Your task to perform on an android device: Open settings on Google Maps Image 0: 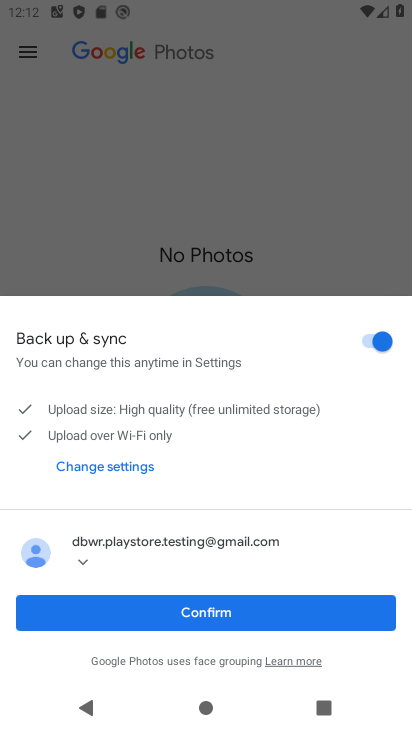
Step 0: press home button
Your task to perform on an android device: Open settings on Google Maps Image 1: 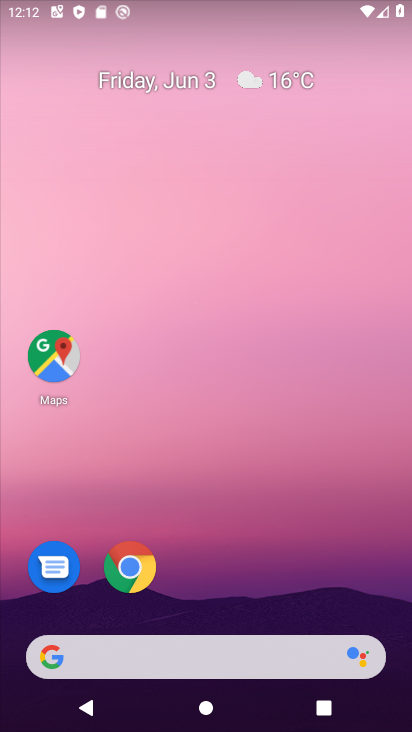
Step 1: click (60, 377)
Your task to perform on an android device: Open settings on Google Maps Image 2: 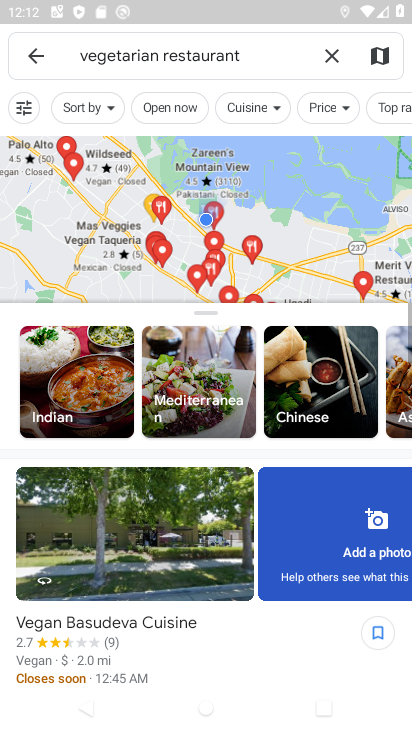
Step 2: click (38, 55)
Your task to perform on an android device: Open settings on Google Maps Image 3: 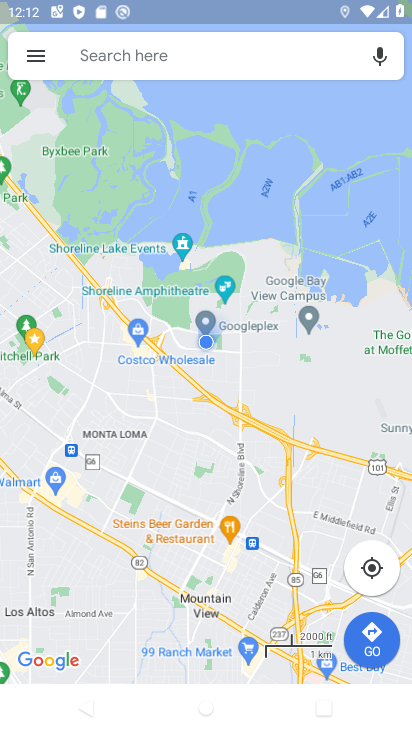
Step 3: click (37, 55)
Your task to perform on an android device: Open settings on Google Maps Image 4: 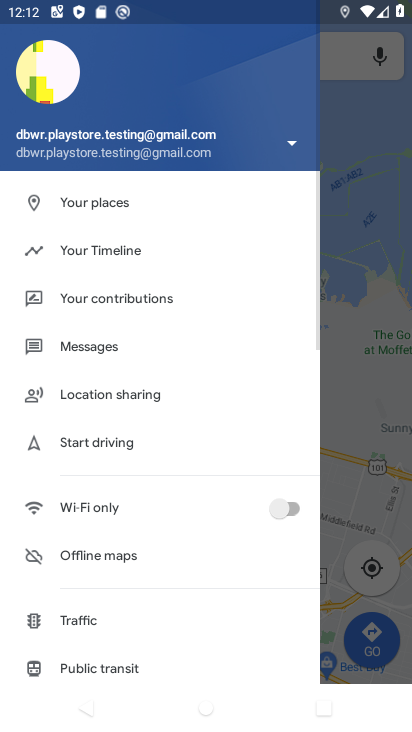
Step 4: drag from (93, 587) to (81, 215)
Your task to perform on an android device: Open settings on Google Maps Image 5: 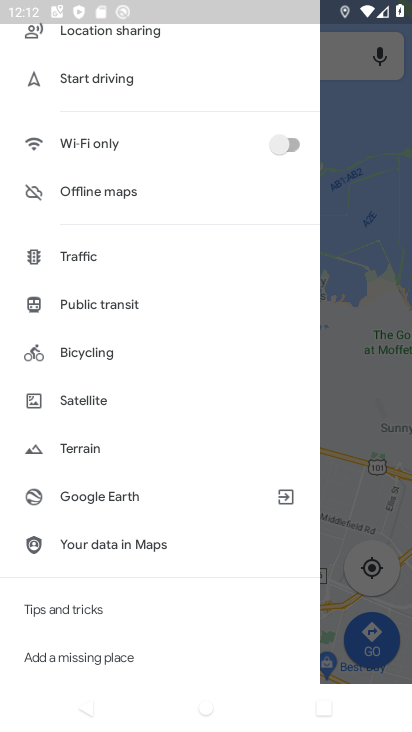
Step 5: drag from (83, 612) to (85, 369)
Your task to perform on an android device: Open settings on Google Maps Image 6: 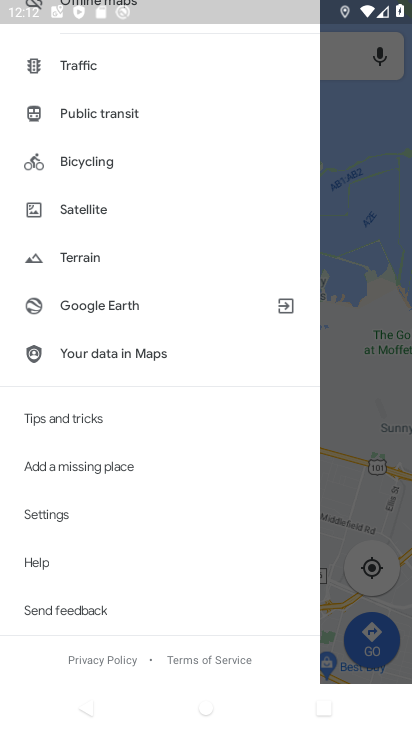
Step 6: click (63, 515)
Your task to perform on an android device: Open settings on Google Maps Image 7: 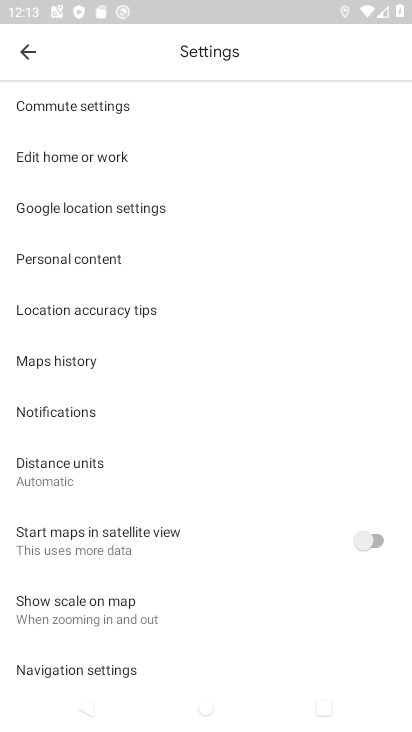
Step 7: task complete